Your task to perform on an android device: Open Amazon Image 0: 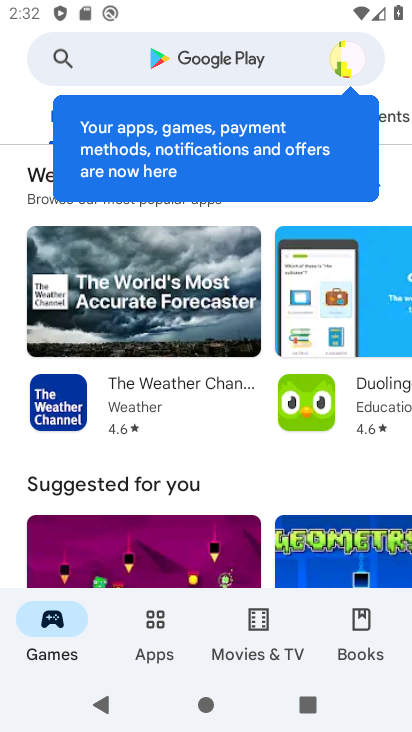
Step 0: press home button
Your task to perform on an android device: Open Amazon Image 1: 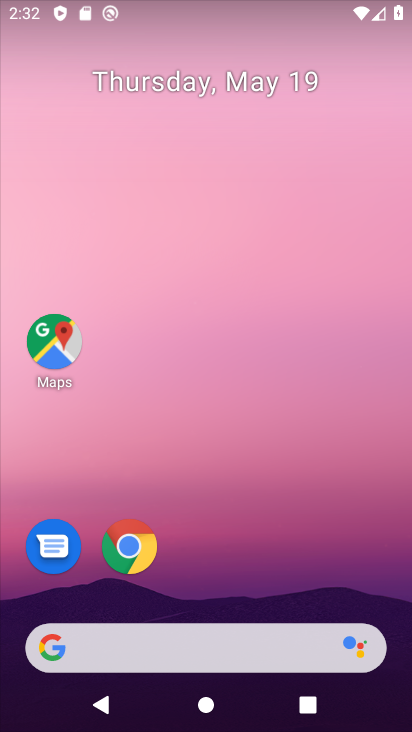
Step 1: click (123, 542)
Your task to perform on an android device: Open Amazon Image 2: 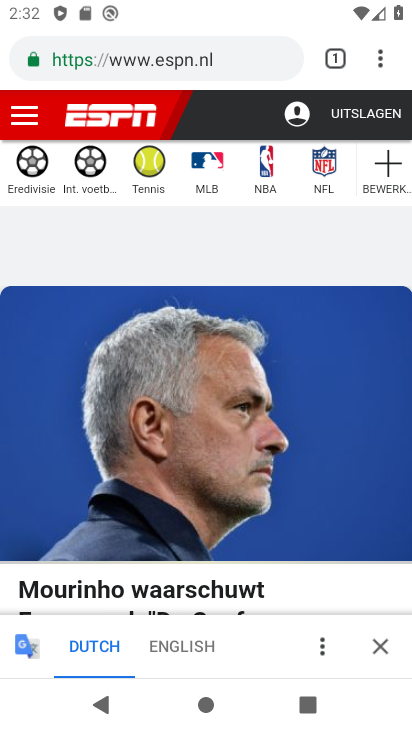
Step 2: drag from (381, 60) to (242, 118)
Your task to perform on an android device: Open Amazon Image 3: 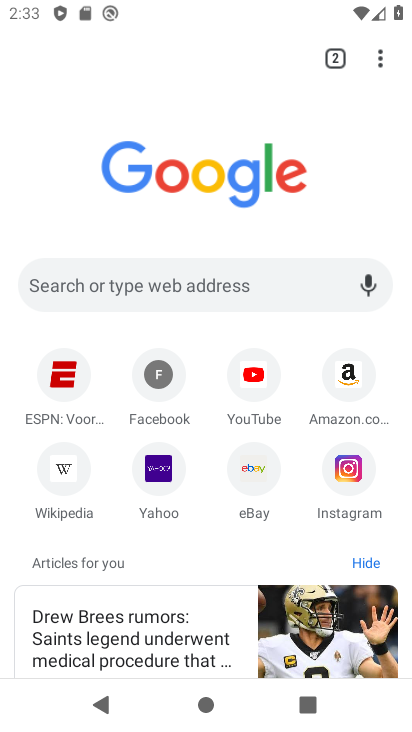
Step 3: click (356, 380)
Your task to perform on an android device: Open Amazon Image 4: 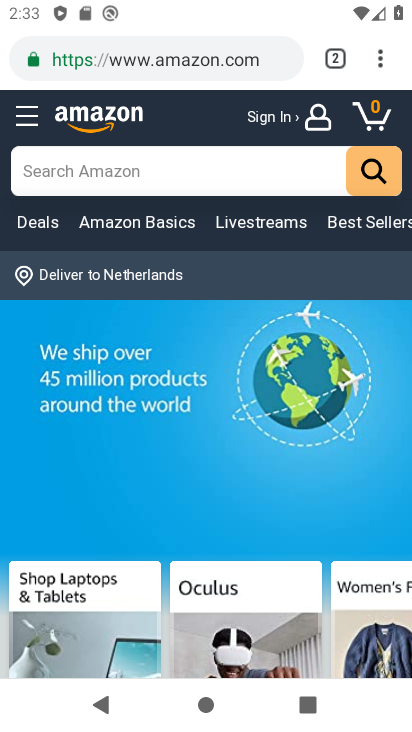
Step 4: task complete